Your task to perform on an android device: change your default location settings in chrome Image 0: 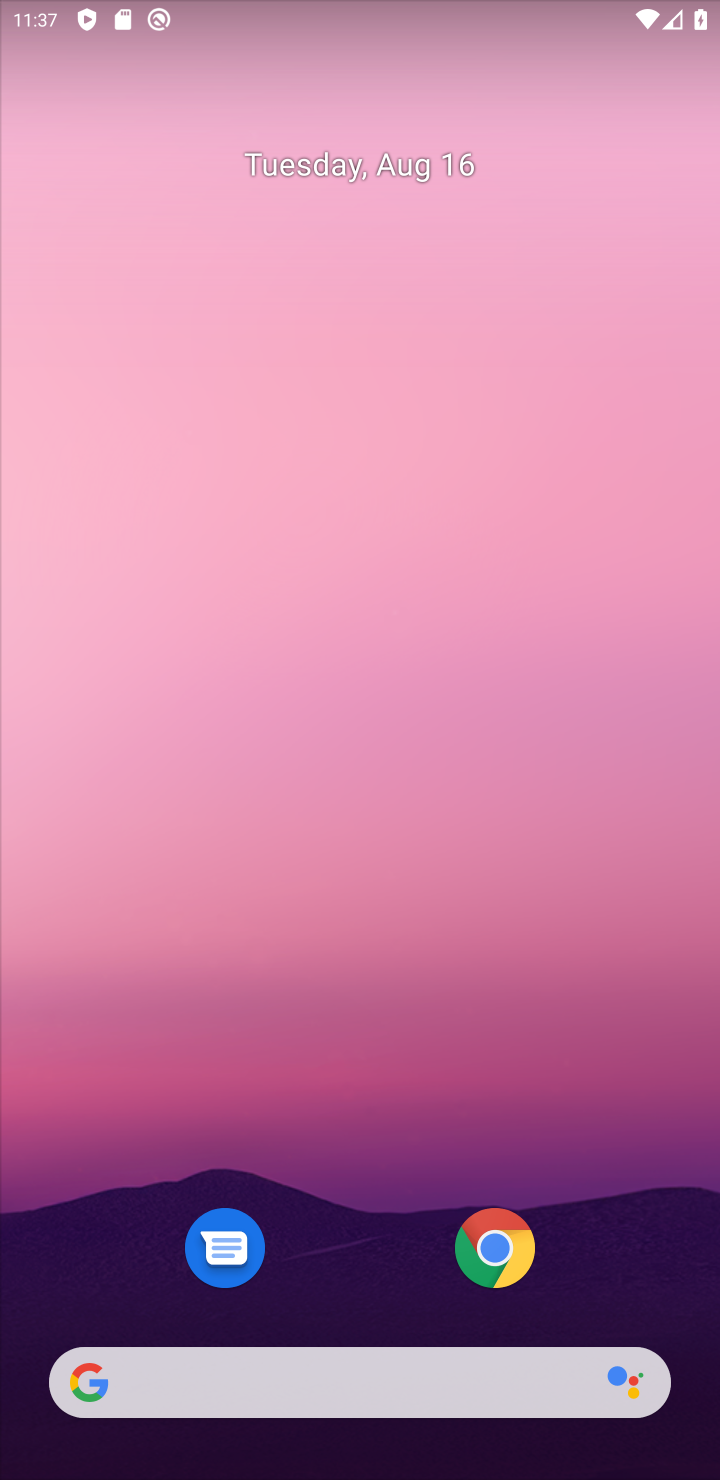
Step 0: drag from (442, 1037) to (407, 247)
Your task to perform on an android device: change your default location settings in chrome Image 1: 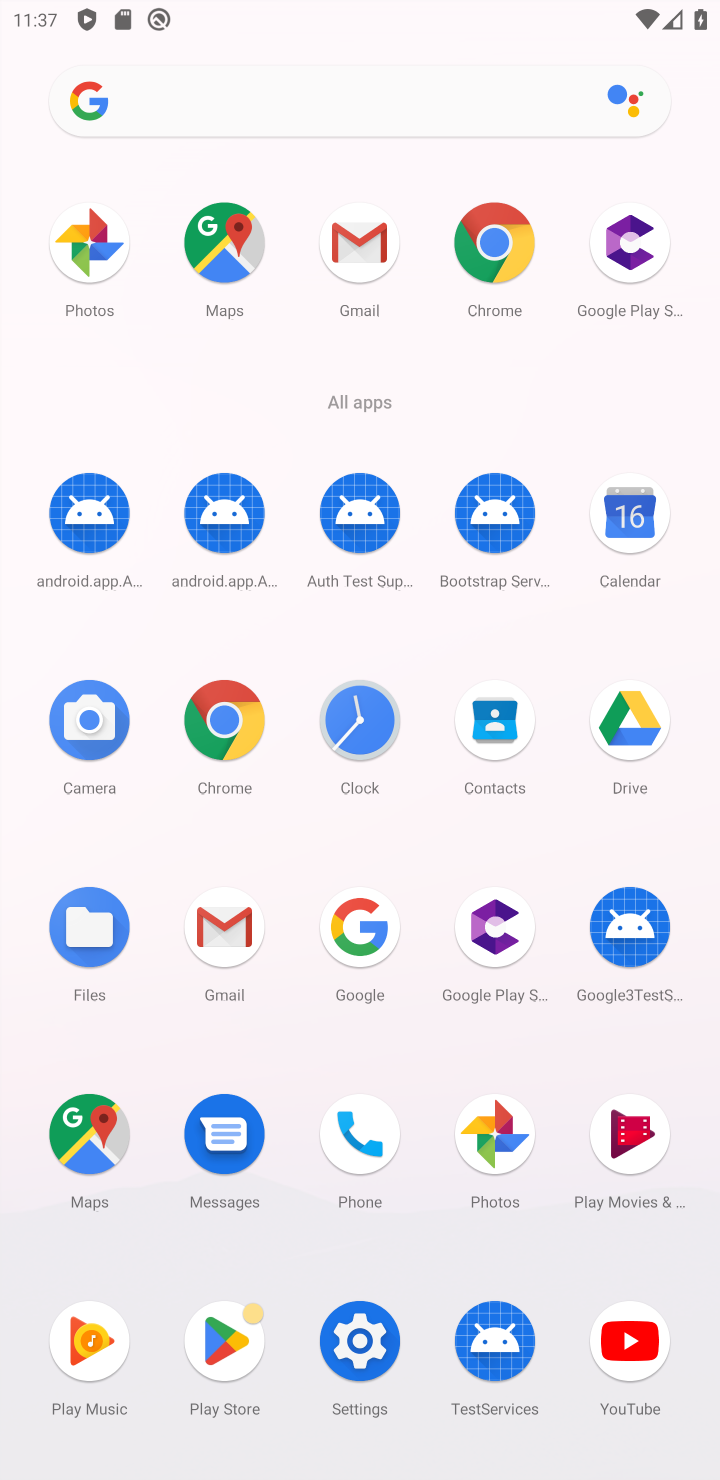
Step 1: click (525, 250)
Your task to perform on an android device: change your default location settings in chrome Image 2: 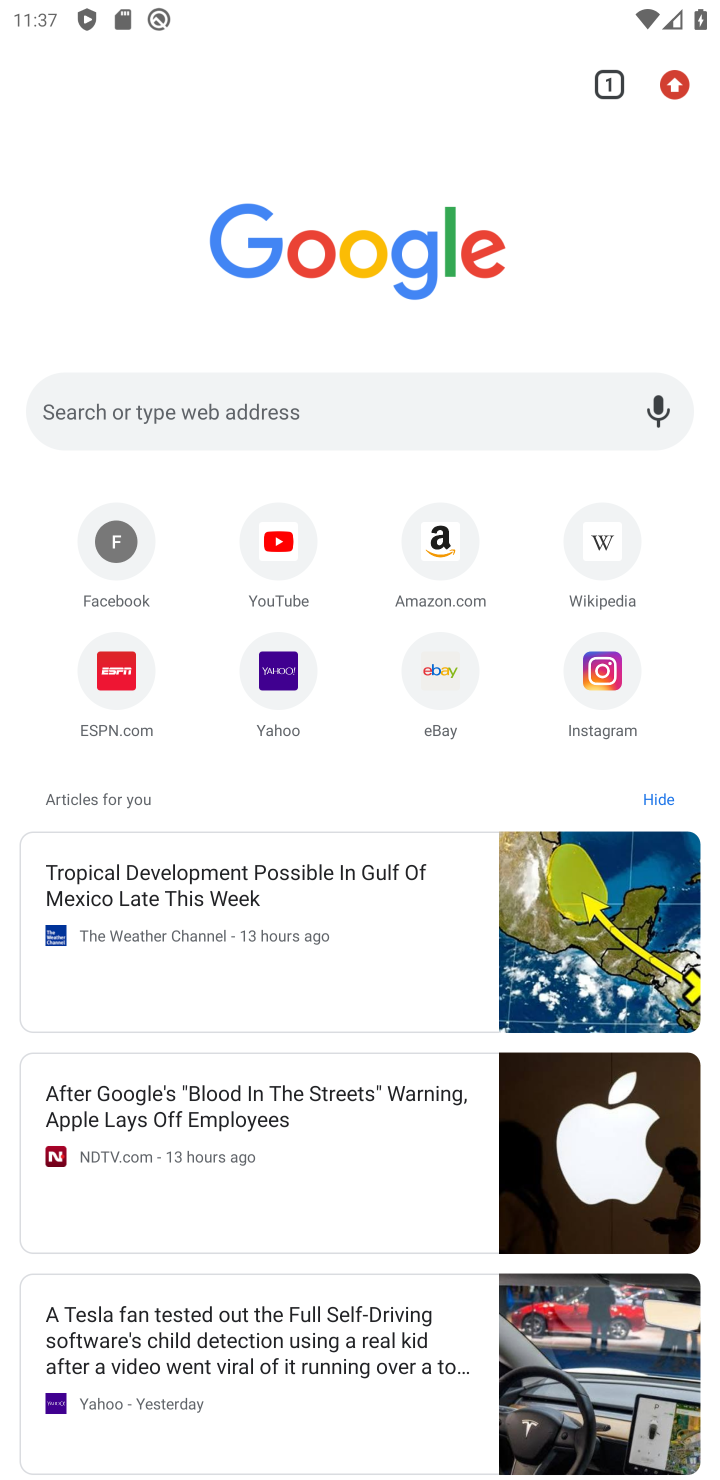
Step 2: task complete